Your task to perform on an android device: manage bookmarks in the chrome app Image 0: 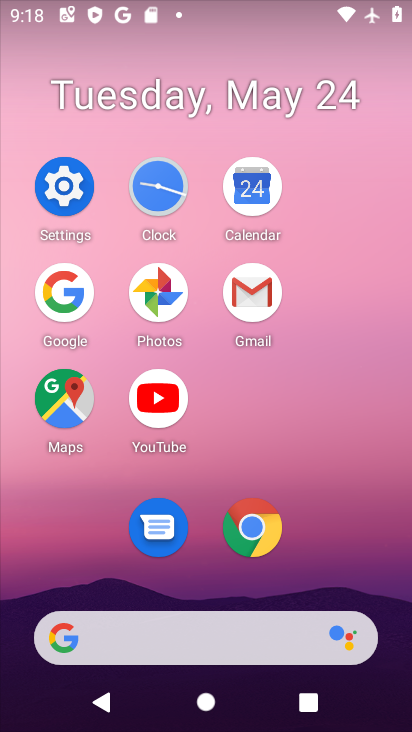
Step 0: click (260, 540)
Your task to perform on an android device: manage bookmarks in the chrome app Image 1: 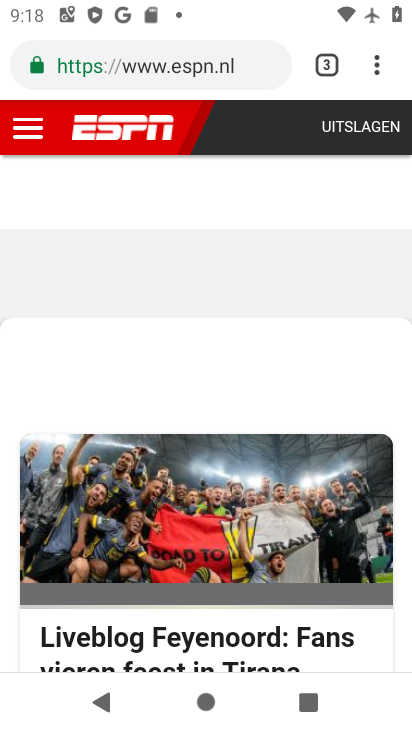
Step 1: click (383, 70)
Your task to perform on an android device: manage bookmarks in the chrome app Image 2: 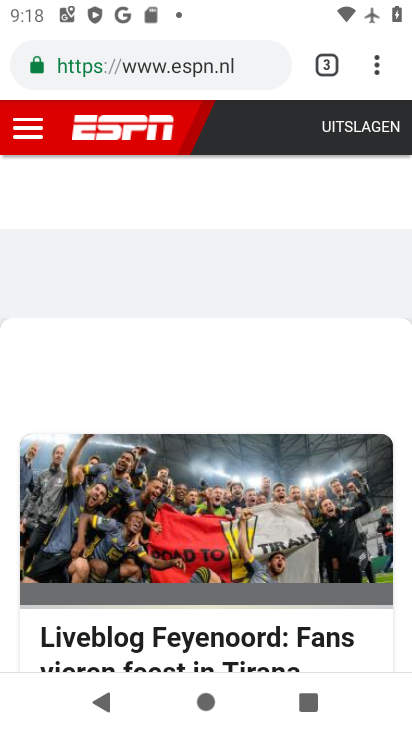
Step 2: click (374, 75)
Your task to perform on an android device: manage bookmarks in the chrome app Image 3: 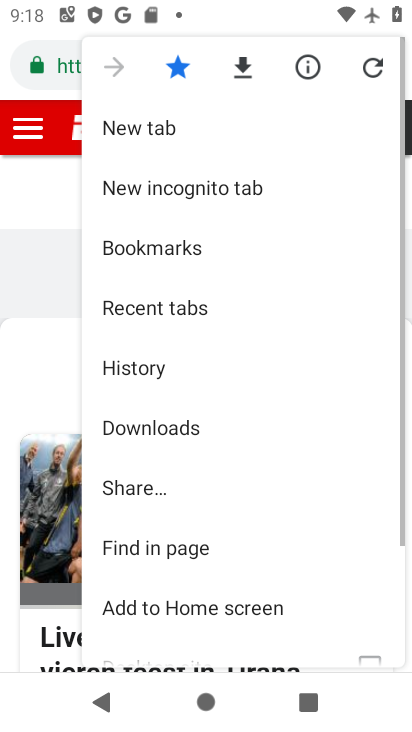
Step 3: click (182, 252)
Your task to perform on an android device: manage bookmarks in the chrome app Image 4: 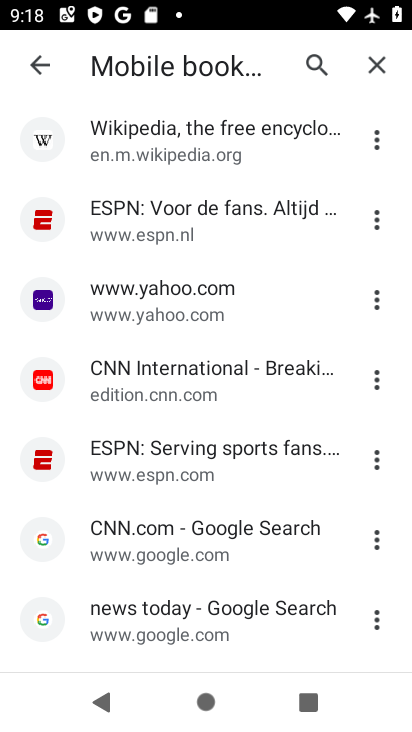
Step 4: click (372, 137)
Your task to perform on an android device: manage bookmarks in the chrome app Image 5: 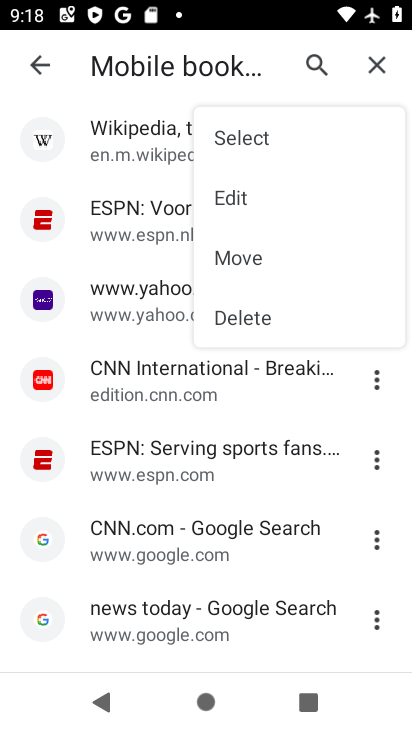
Step 5: click (307, 314)
Your task to perform on an android device: manage bookmarks in the chrome app Image 6: 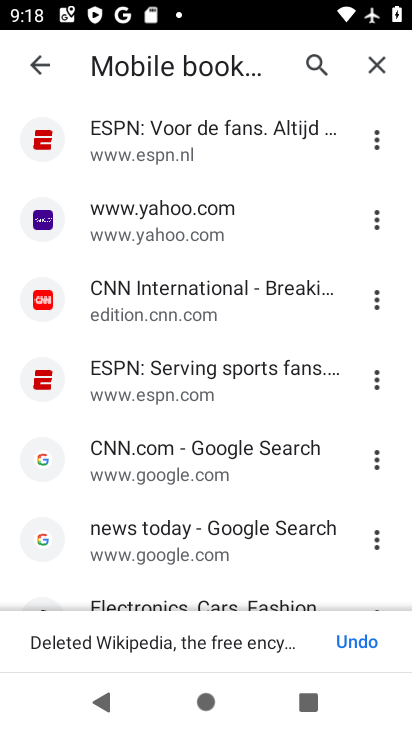
Step 6: task complete